Your task to perform on an android device: toggle priority inbox in the gmail app Image 0: 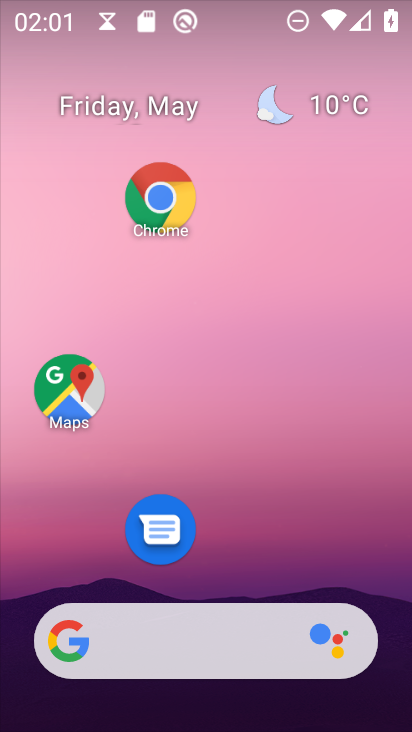
Step 0: drag from (267, 451) to (271, 139)
Your task to perform on an android device: toggle priority inbox in the gmail app Image 1: 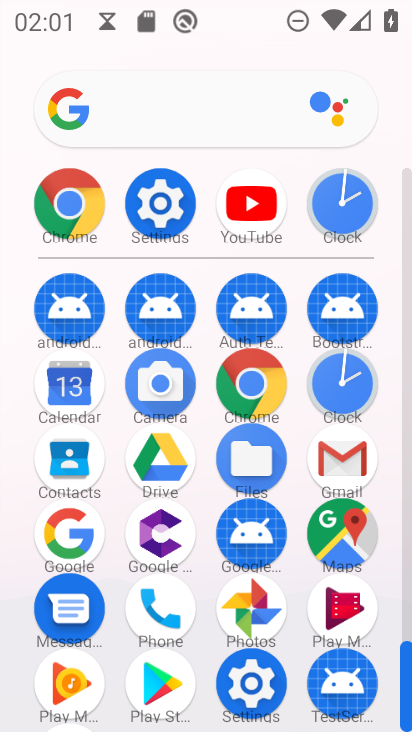
Step 1: click (348, 461)
Your task to perform on an android device: toggle priority inbox in the gmail app Image 2: 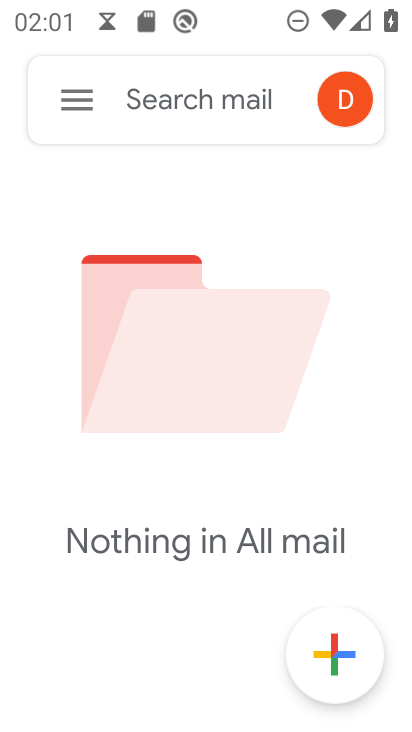
Step 2: click (65, 104)
Your task to perform on an android device: toggle priority inbox in the gmail app Image 3: 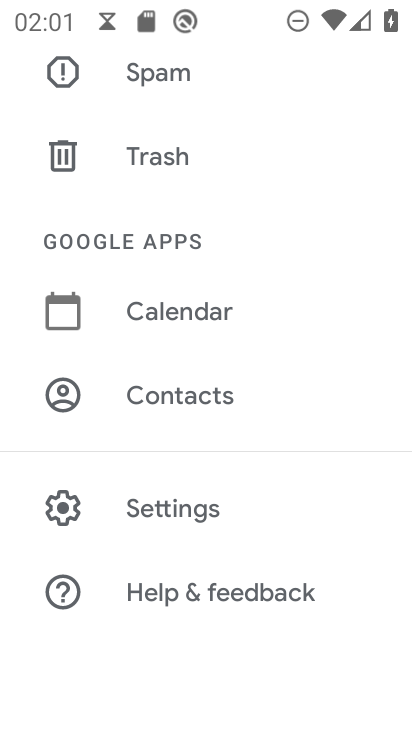
Step 3: click (199, 504)
Your task to perform on an android device: toggle priority inbox in the gmail app Image 4: 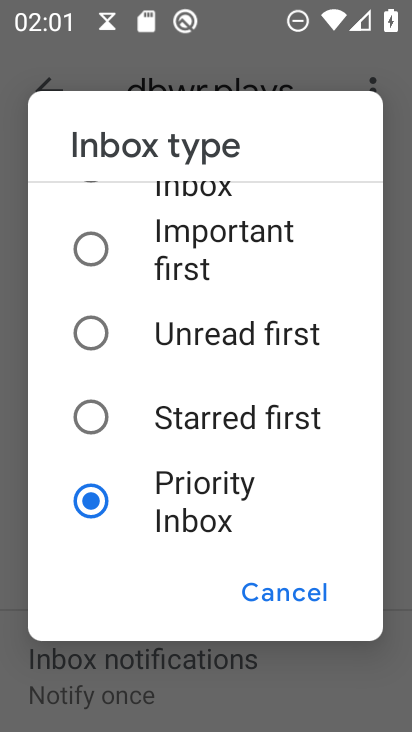
Step 4: click (175, 233)
Your task to perform on an android device: toggle priority inbox in the gmail app Image 5: 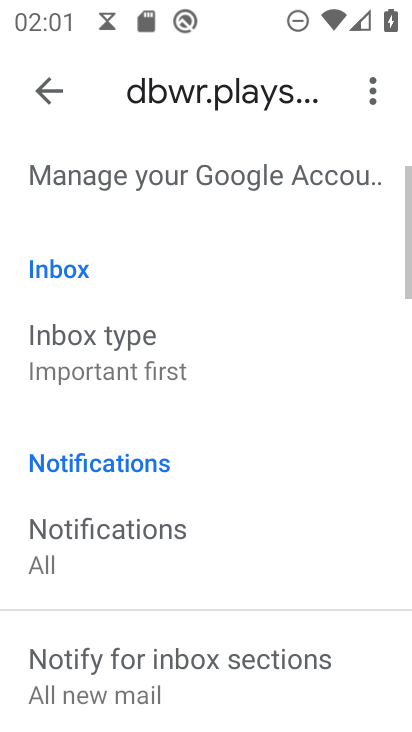
Step 5: task complete